Your task to perform on an android device: toggle improve location accuracy Image 0: 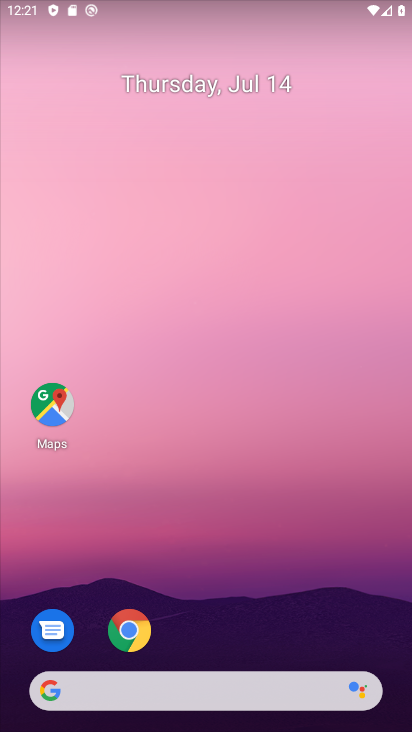
Step 0: drag from (219, 656) to (223, 137)
Your task to perform on an android device: toggle improve location accuracy Image 1: 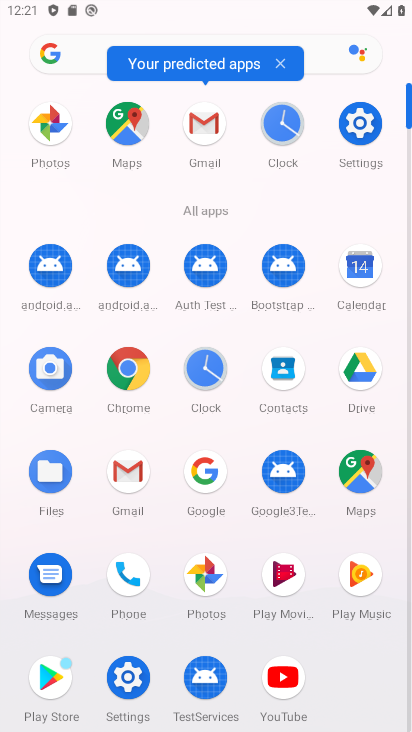
Step 1: click (125, 678)
Your task to perform on an android device: toggle improve location accuracy Image 2: 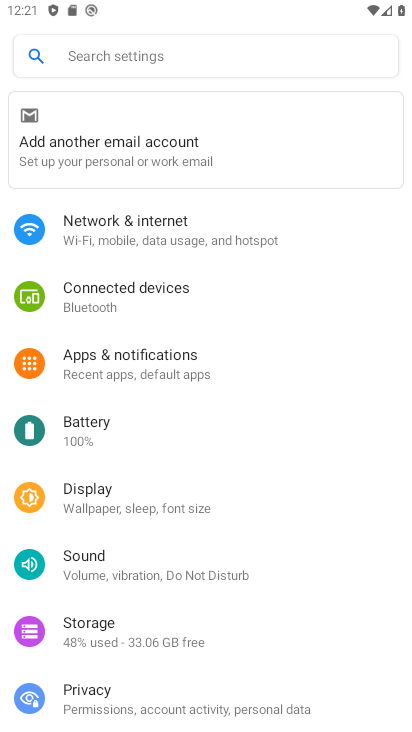
Step 2: drag from (110, 662) to (155, 427)
Your task to perform on an android device: toggle improve location accuracy Image 3: 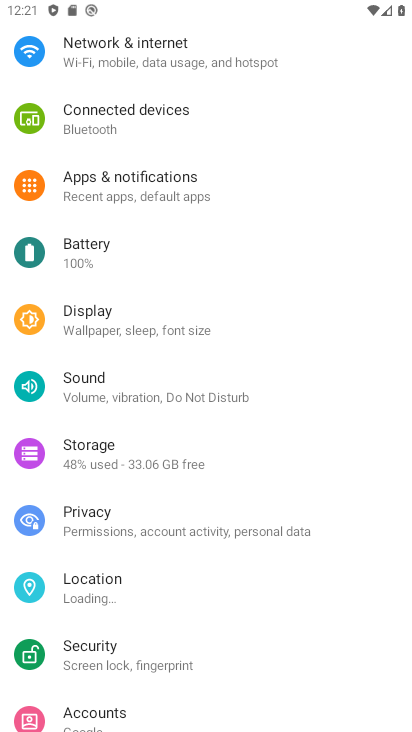
Step 3: click (116, 590)
Your task to perform on an android device: toggle improve location accuracy Image 4: 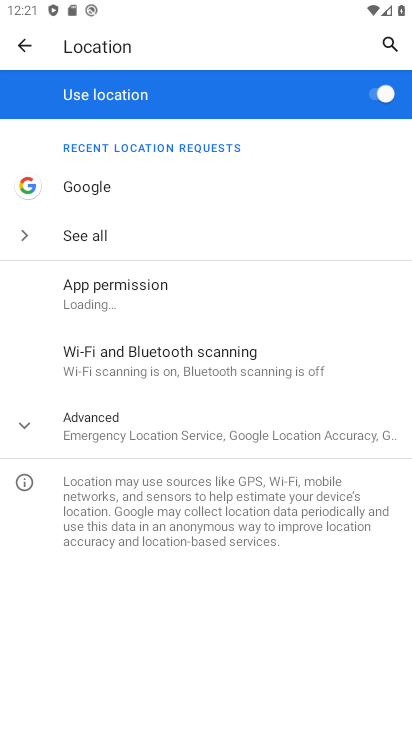
Step 4: click (188, 429)
Your task to perform on an android device: toggle improve location accuracy Image 5: 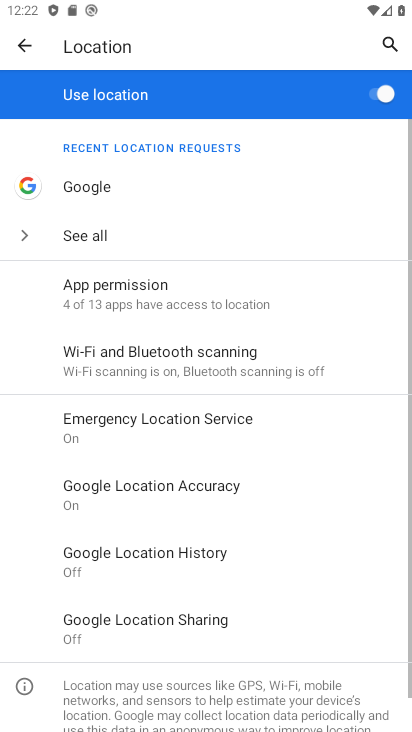
Step 5: click (226, 495)
Your task to perform on an android device: toggle improve location accuracy Image 6: 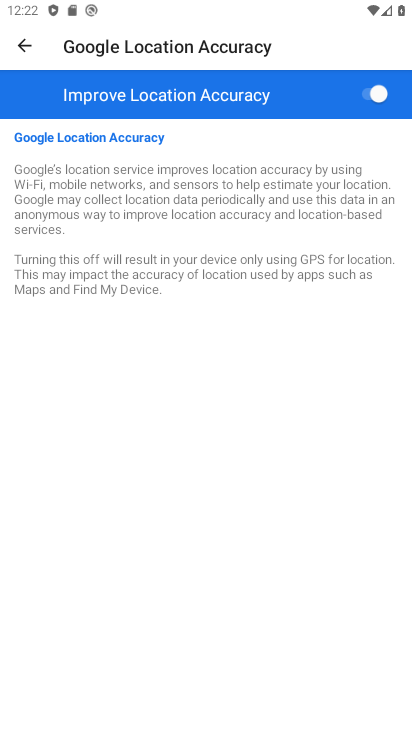
Step 6: click (363, 83)
Your task to perform on an android device: toggle improve location accuracy Image 7: 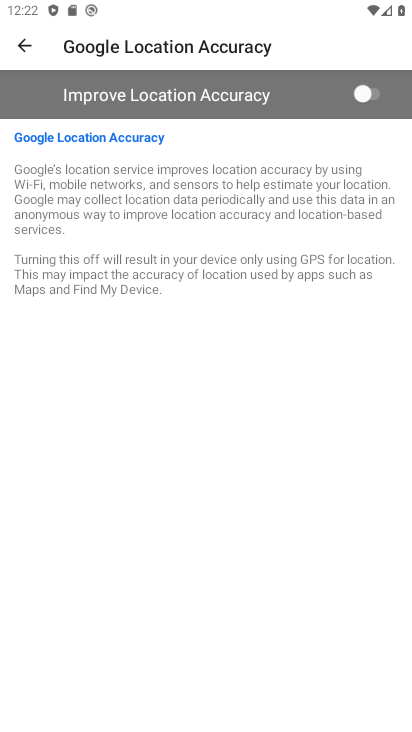
Step 7: task complete